Your task to perform on an android device: Show me popular games on the Play Store Image 0: 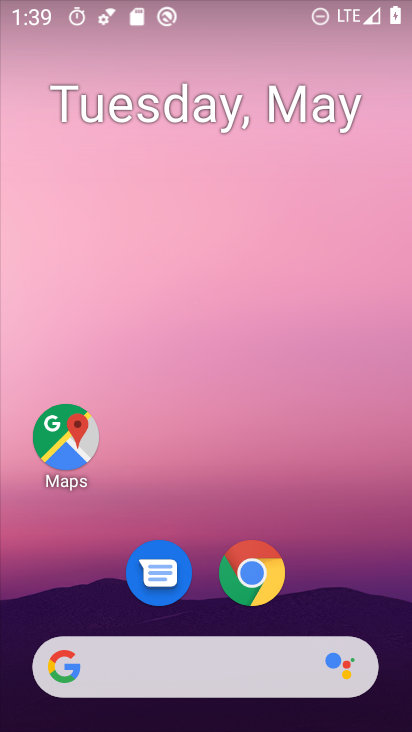
Step 0: drag from (352, 468) to (301, 88)
Your task to perform on an android device: Show me popular games on the Play Store Image 1: 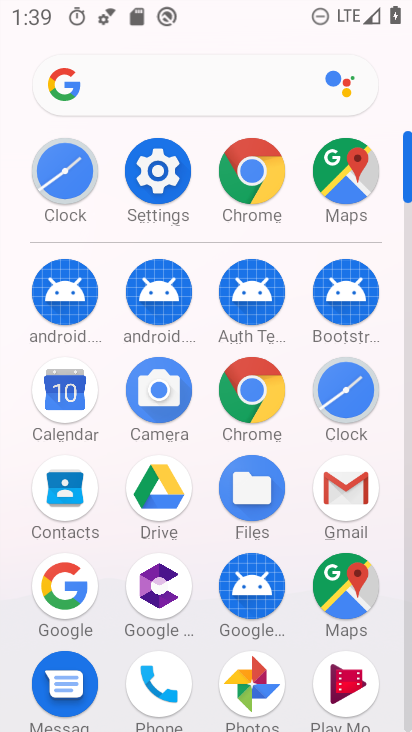
Step 1: drag from (380, 615) to (351, 268)
Your task to perform on an android device: Show me popular games on the Play Store Image 2: 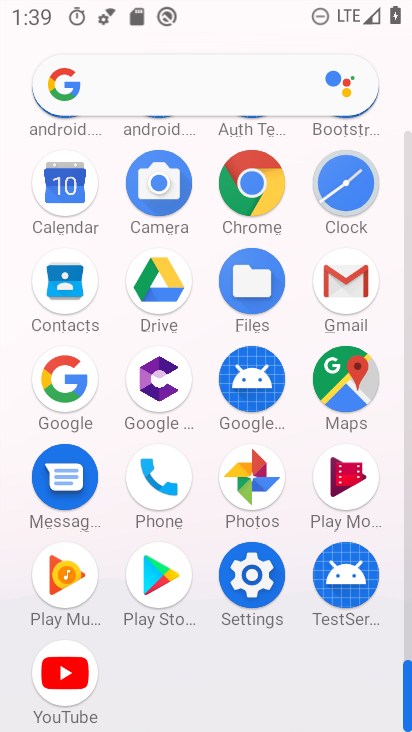
Step 2: click (167, 584)
Your task to perform on an android device: Show me popular games on the Play Store Image 3: 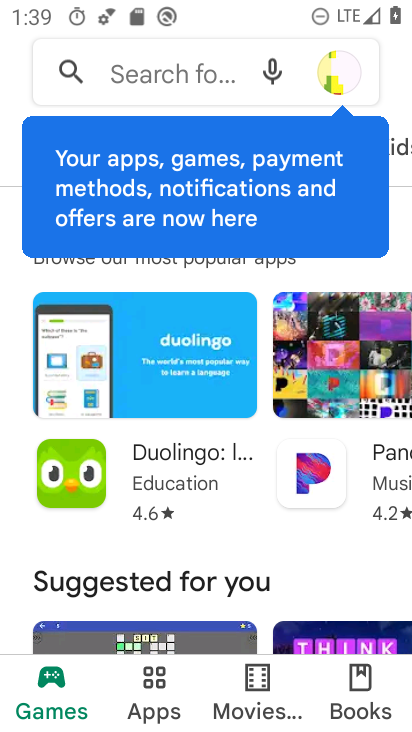
Step 3: click (141, 75)
Your task to perform on an android device: Show me popular games on the Play Store Image 4: 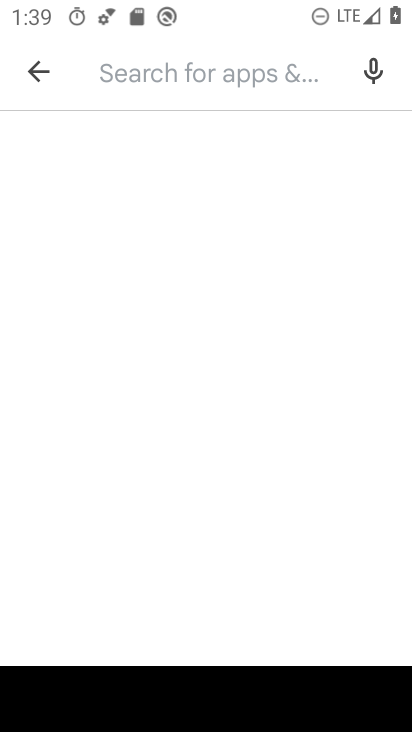
Step 4: type "popular games"
Your task to perform on an android device: Show me popular games on the Play Store Image 5: 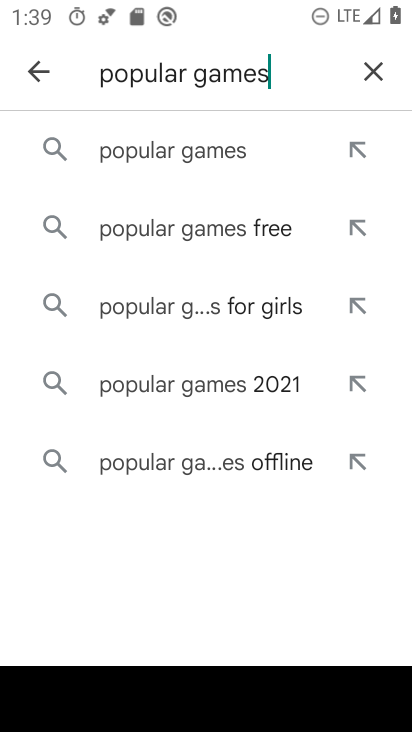
Step 5: click (211, 137)
Your task to perform on an android device: Show me popular games on the Play Store Image 6: 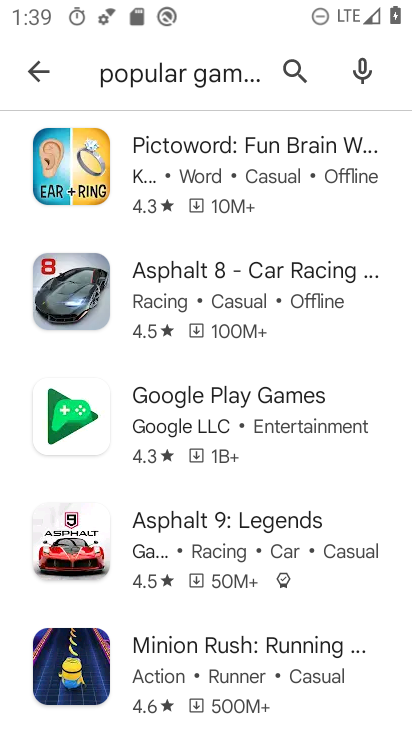
Step 6: task complete